Your task to perform on an android device: open a bookmark in the chrome app Image 0: 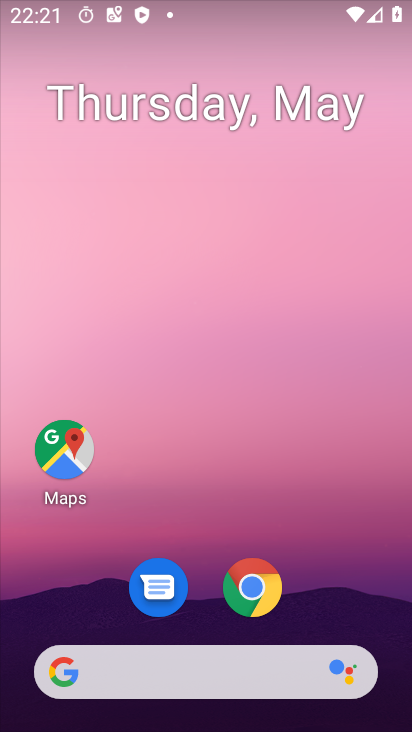
Step 0: click (252, 591)
Your task to perform on an android device: open a bookmark in the chrome app Image 1: 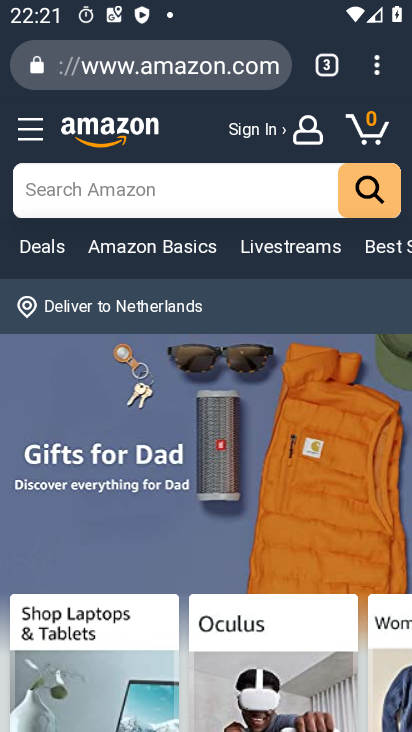
Step 1: click (381, 70)
Your task to perform on an android device: open a bookmark in the chrome app Image 2: 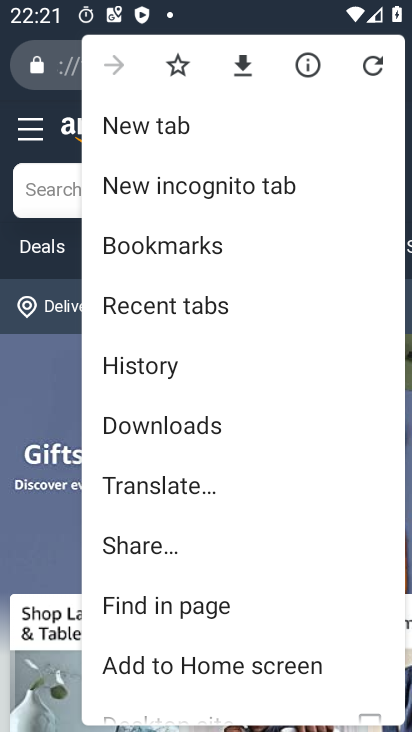
Step 2: click (148, 255)
Your task to perform on an android device: open a bookmark in the chrome app Image 3: 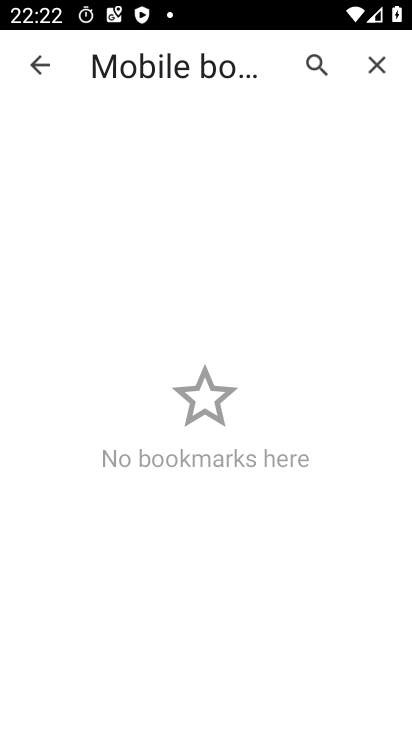
Step 3: task complete